Your task to perform on an android device: Open internet settings Image 0: 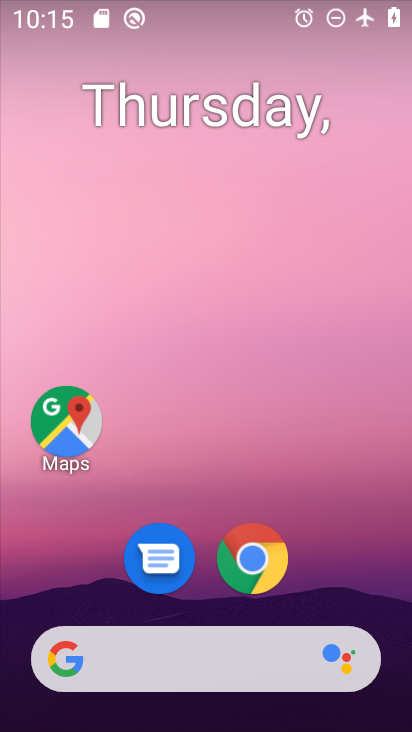
Step 0: drag from (377, 599) to (300, 102)
Your task to perform on an android device: Open internet settings Image 1: 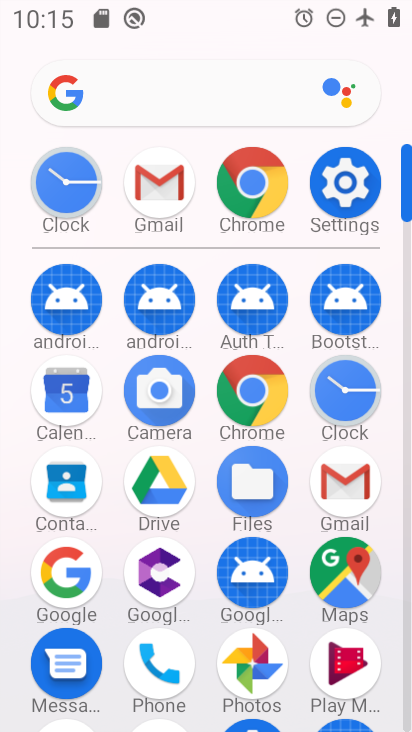
Step 1: click (408, 705)
Your task to perform on an android device: Open internet settings Image 2: 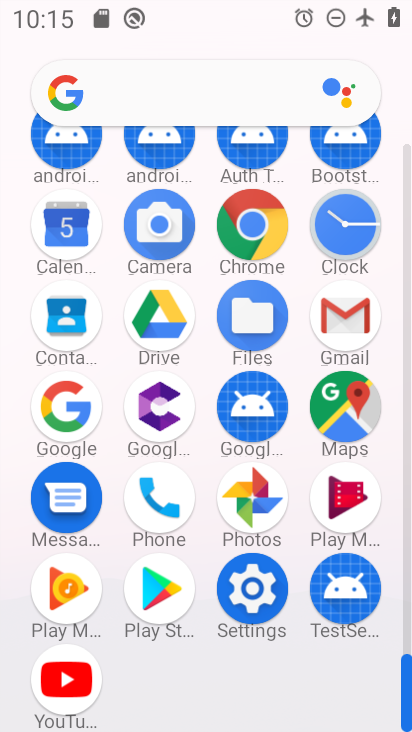
Step 2: click (245, 583)
Your task to perform on an android device: Open internet settings Image 3: 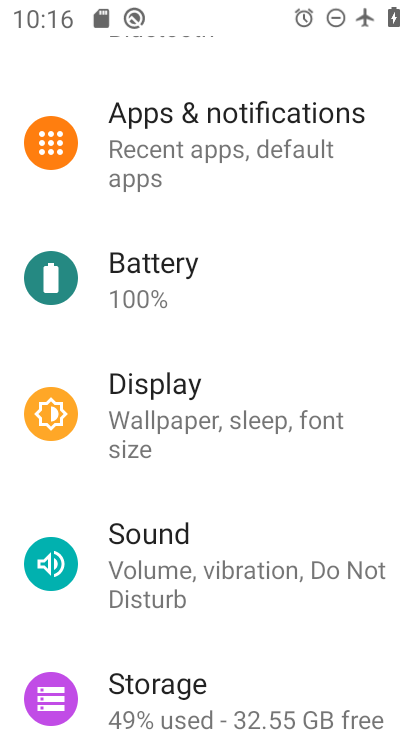
Step 3: drag from (264, 208) to (253, 487)
Your task to perform on an android device: Open internet settings Image 4: 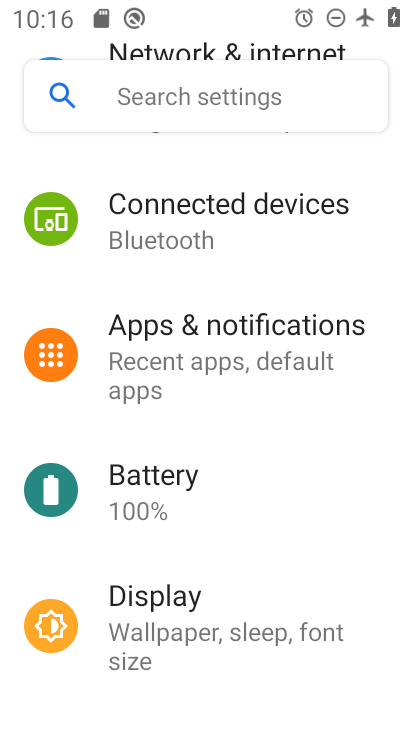
Step 4: drag from (268, 260) to (241, 559)
Your task to perform on an android device: Open internet settings Image 5: 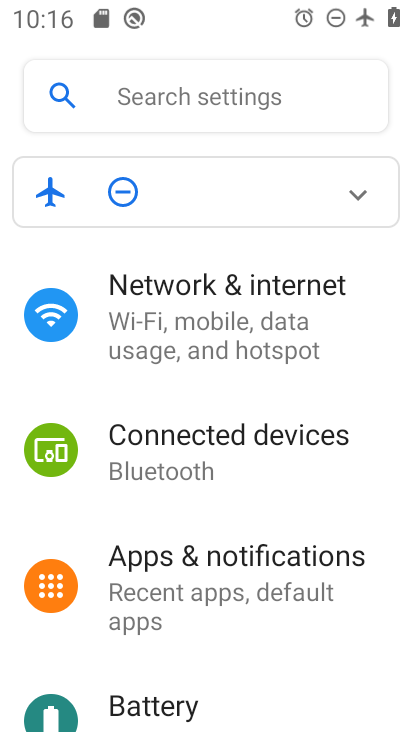
Step 5: click (190, 296)
Your task to perform on an android device: Open internet settings Image 6: 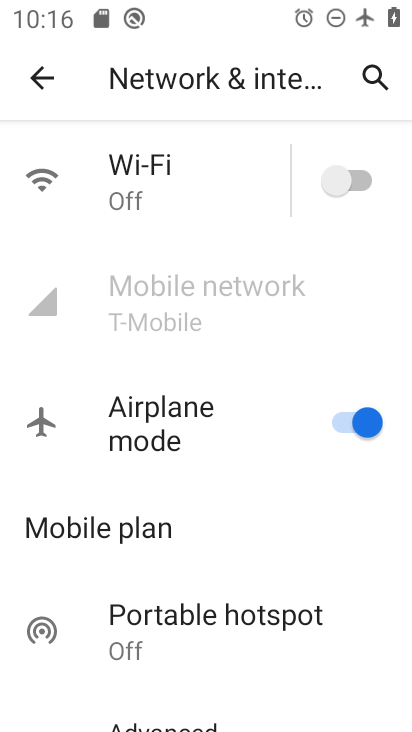
Step 6: drag from (205, 593) to (188, 241)
Your task to perform on an android device: Open internet settings Image 7: 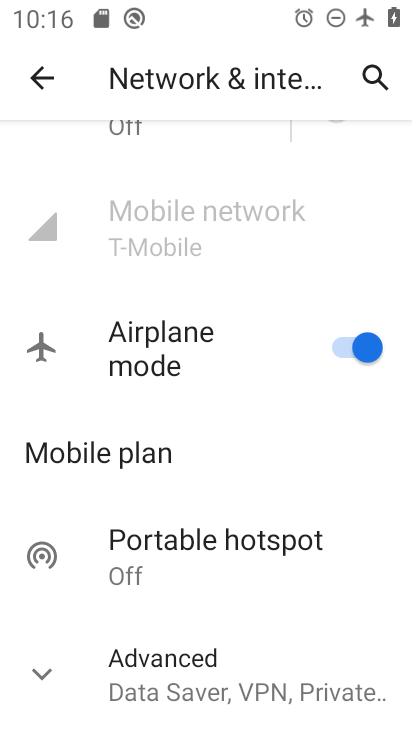
Step 7: drag from (182, 530) to (196, 272)
Your task to perform on an android device: Open internet settings Image 8: 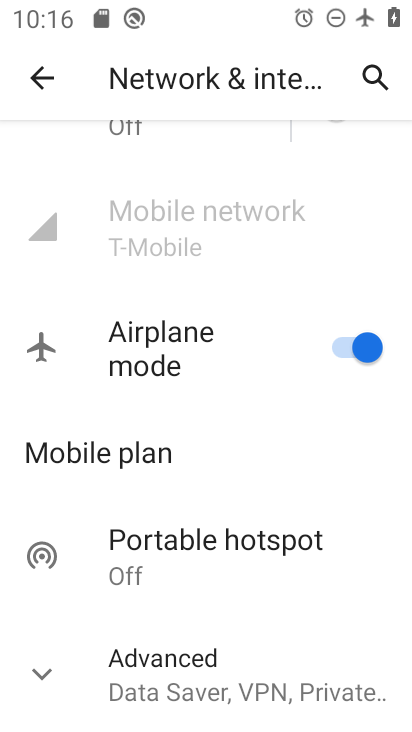
Step 8: click (31, 683)
Your task to perform on an android device: Open internet settings Image 9: 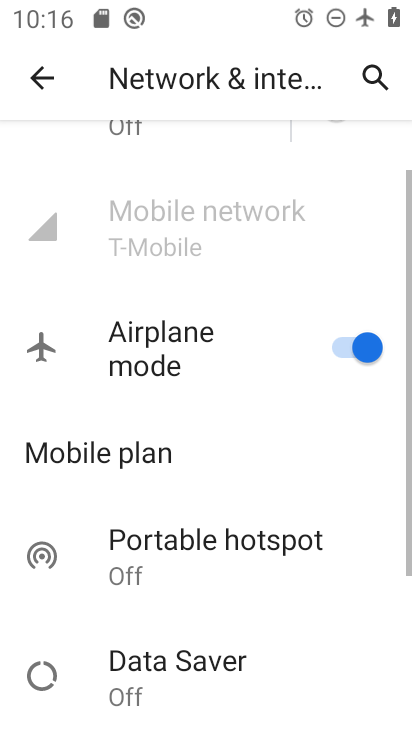
Step 9: task complete